Your task to perform on an android device: Search for Mexican restaurants on Maps Image 0: 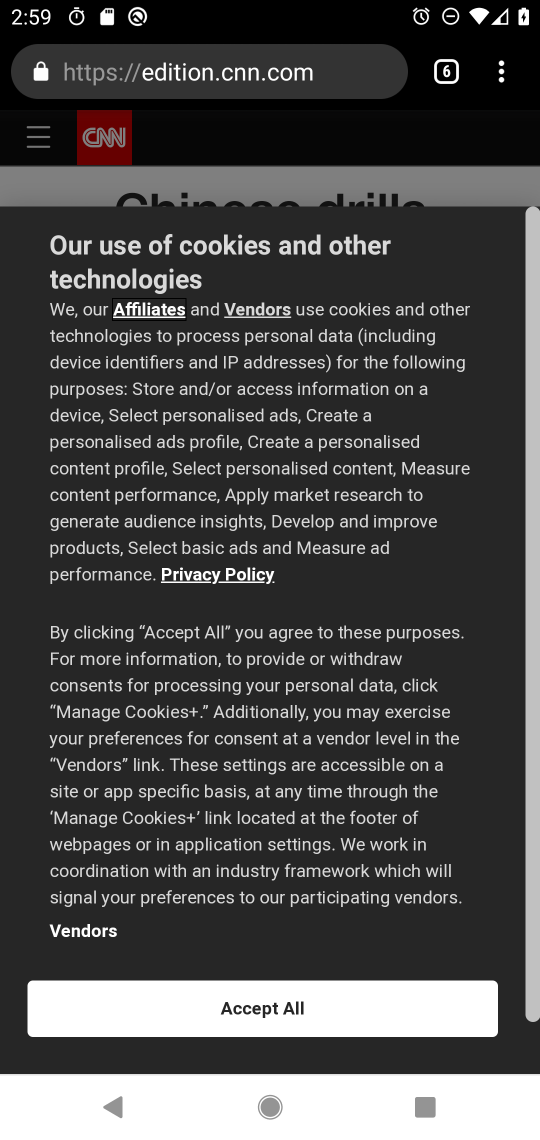
Step 0: press home button
Your task to perform on an android device: Search for Mexican restaurants on Maps Image 1: 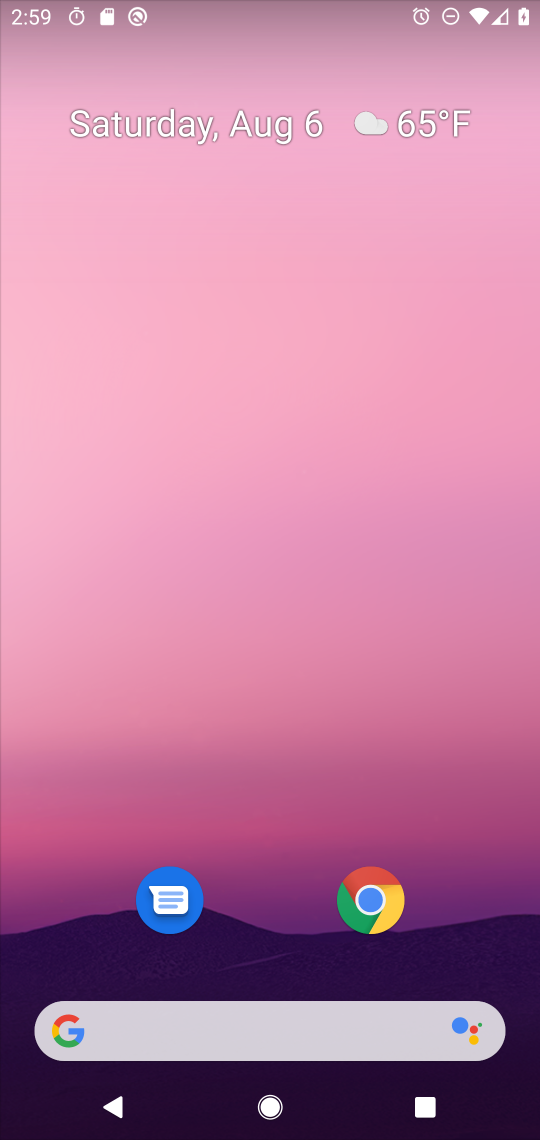
Step 1: drag from (257, 886) to (257, 640)
Your task to perform on an android device: Search for Mexican restaurants on Maps Image 2: 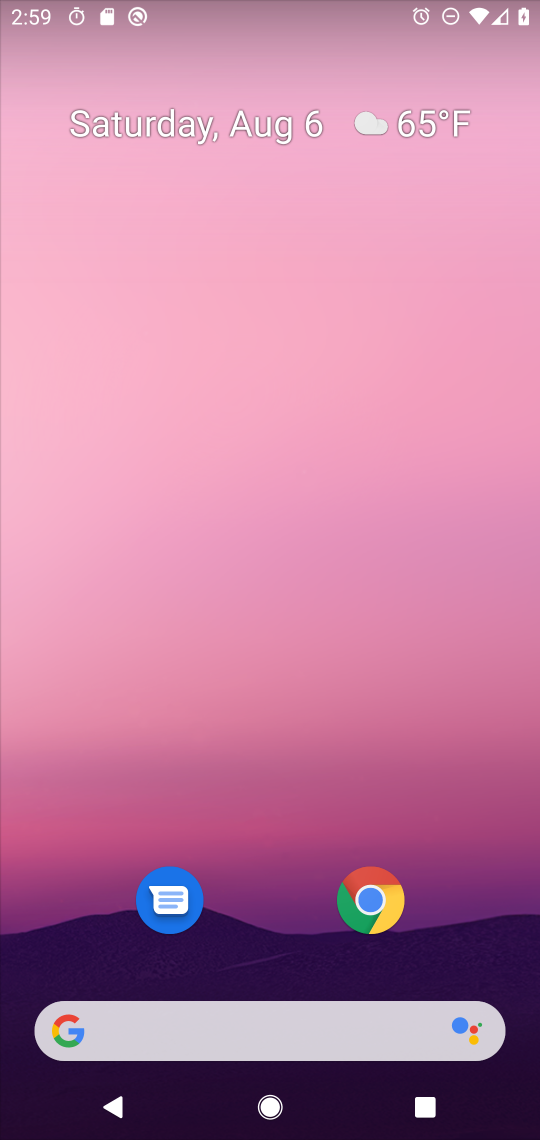
Step 2: drag from (263, 535) to (263, 95)
Your task to perform on an android device: Search for Mexican restaurants on Maps Image 3: 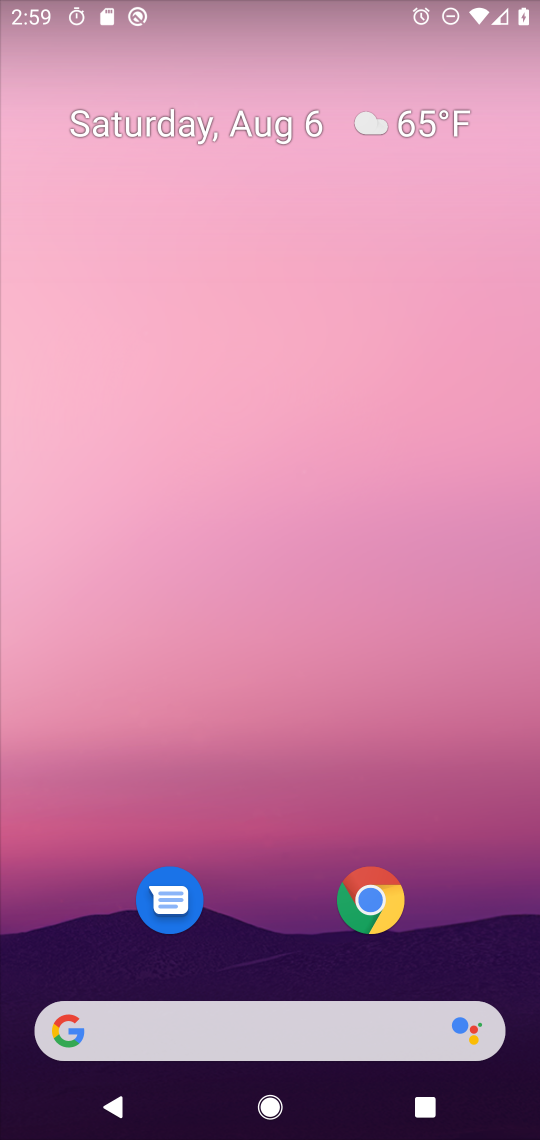
Step 3: drag from (286, 965) to (287, 94)
Your task to perform on an android device: Search for Mexican restaurants on Maps Image 4: 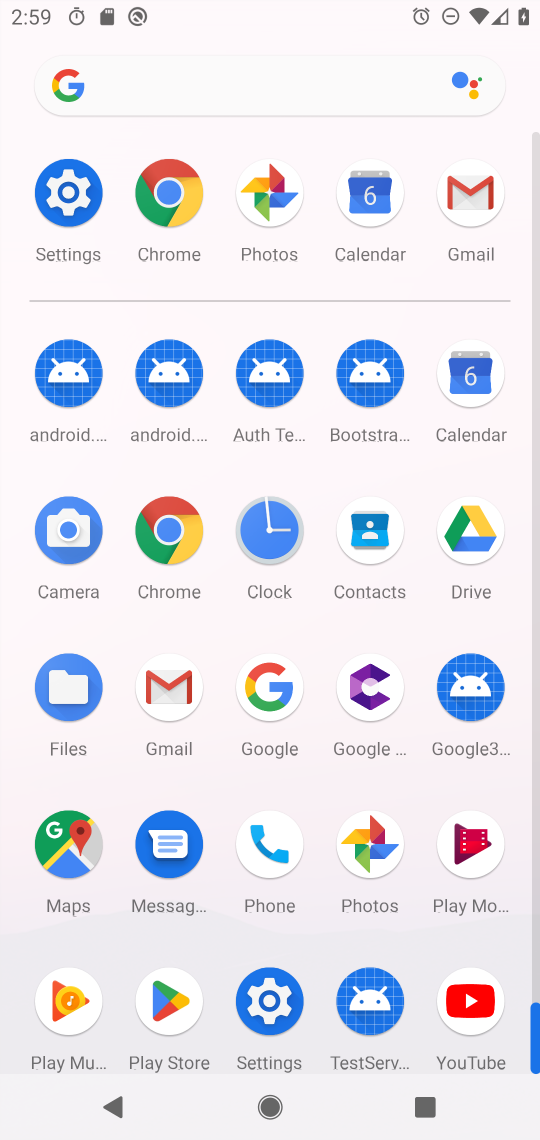
Step 4: click (78, 829)
Your task to perform on an android device: Search for Mexican restaurants on Maps Image 5: 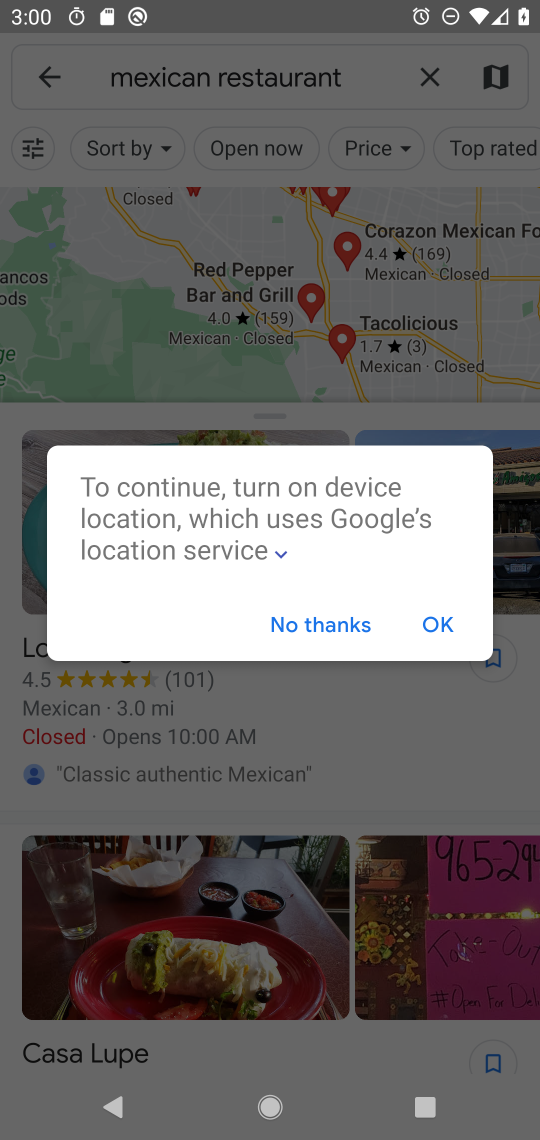
Step 5: click (431, 625)
Your task to perform on an android device: Search for Mexican restaurants on Maps Image 6: 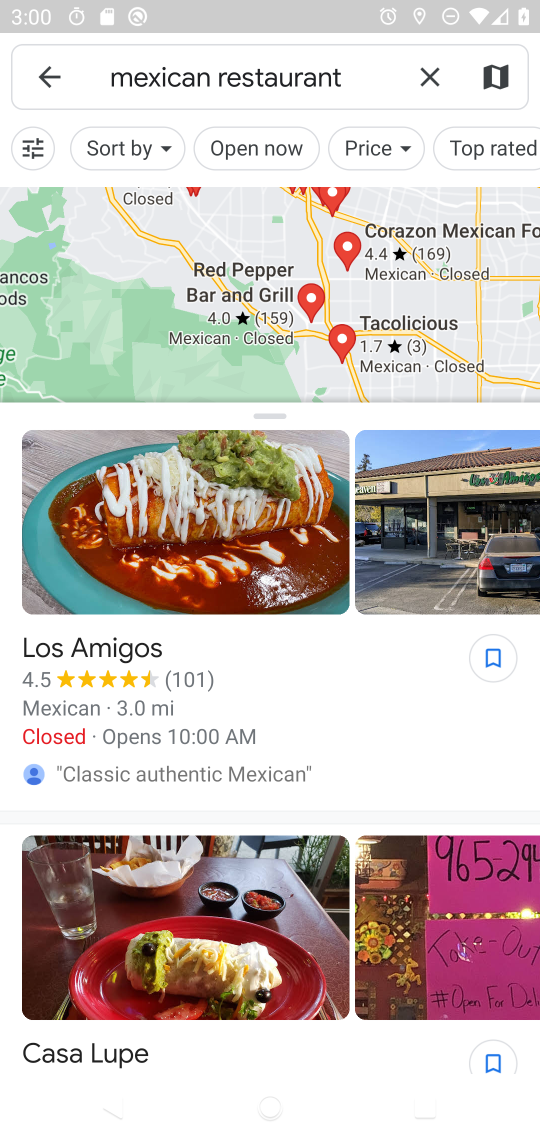
Step 6: click (431, 70)
Your task to perform on an android device: Search for Mexican restaurants on Maps Image 7: 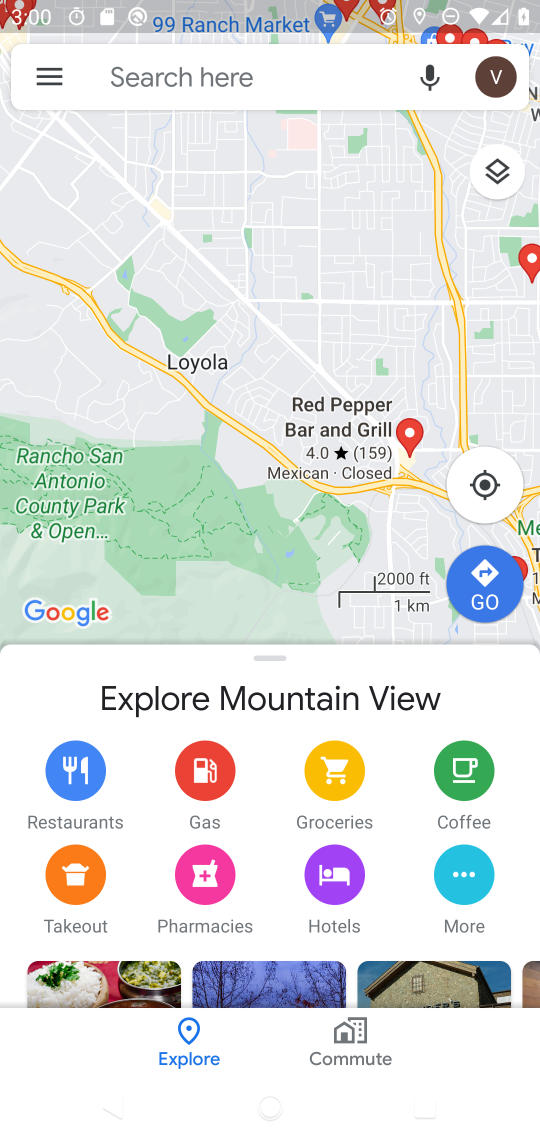
Step 7: click (295, 84)
Your task to perform on an android device: Search for Mexican restaurants on Maps Image 8: 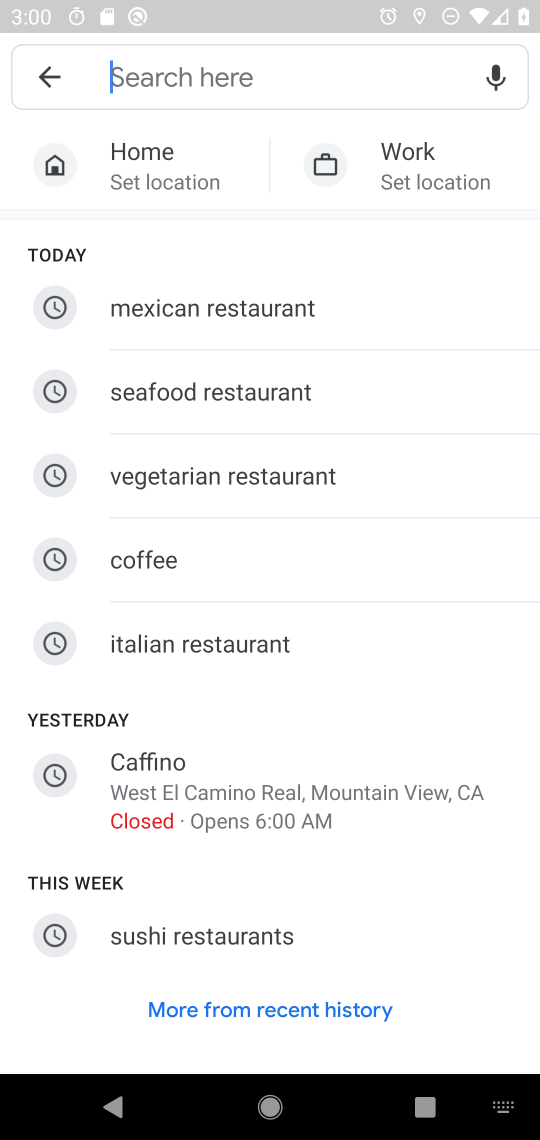
Step 8: type "Mexican restaurants "
Your task to perform on an android device: Search for Mexican restaurants on Maps Image 9: 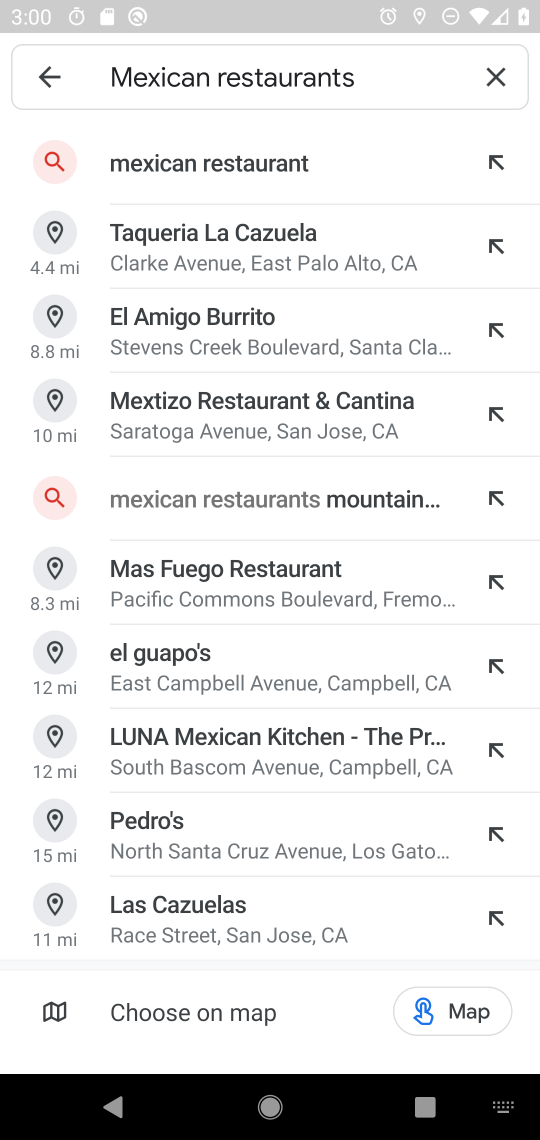
Step 9: click (199, 159)
Your task to perform on an android device: Search for Mexican restaurants on Maps Image 10: 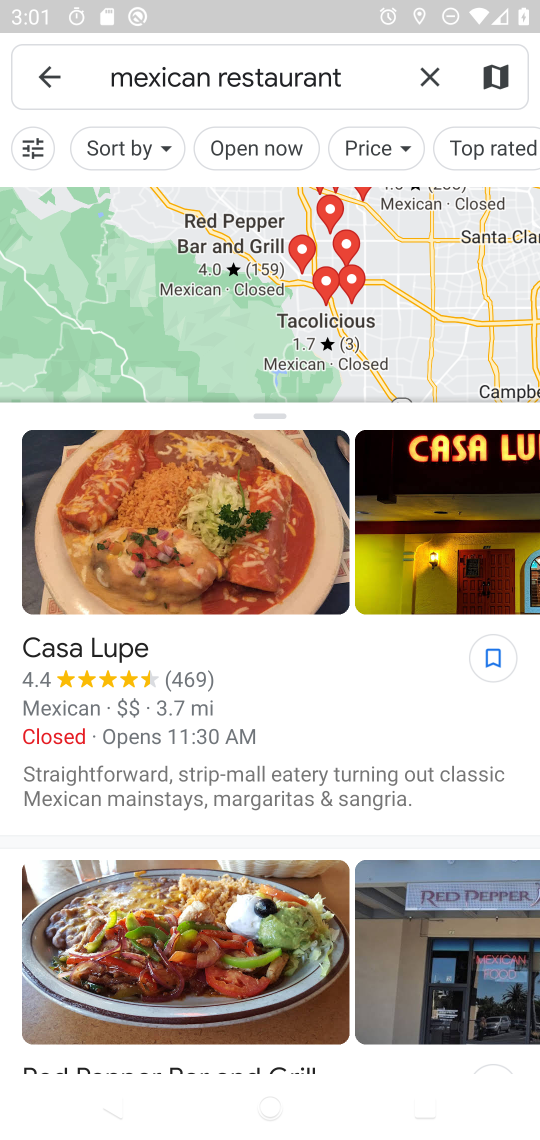
Step 10: task complete